Your task to perform on an android device: Open Maps and search for coffee Image 0: 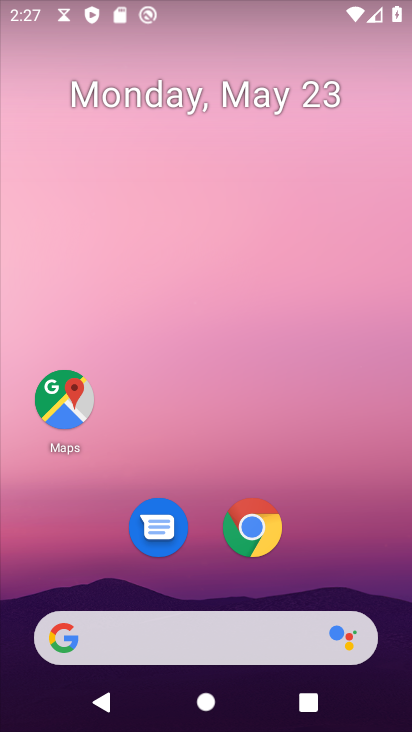
Step 0: drag from (328, 547) to (288, 12)
Your task to perform on an android device: Open Maps and search for coffee Image 1: 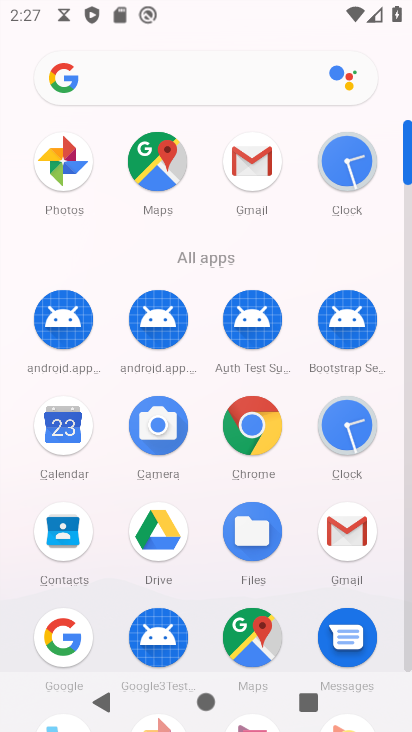
Step 1: drag from (15, 580) to (16, 156)
Your task to perform on an android device: Open Maps and search for coffee Image 2: 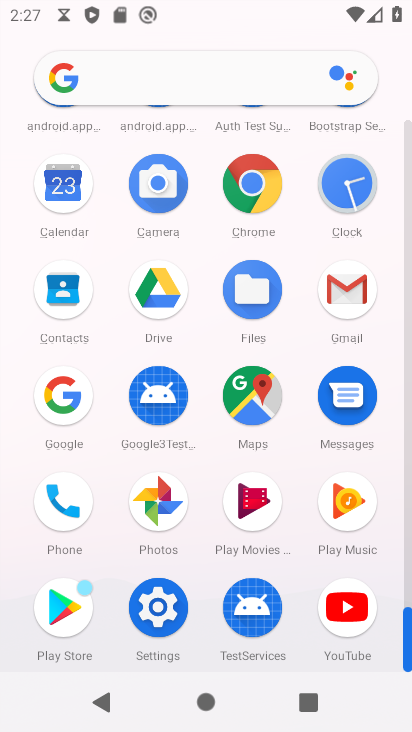
Step 2: click (250, 390)
Your task to perform on an android device: Open Maps and search for coffee Image 3: 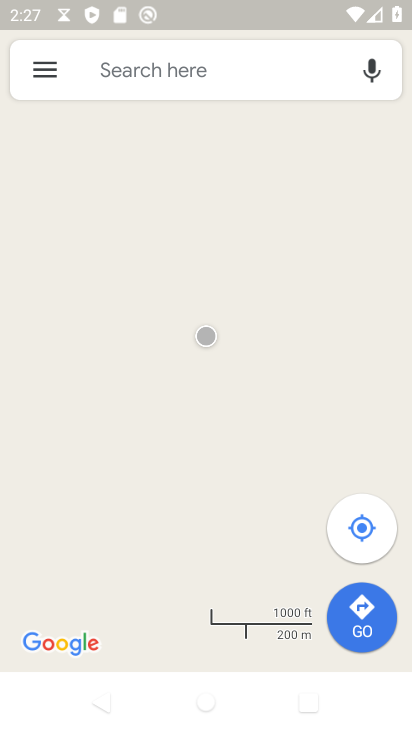
Step 3: click (233, 67)
Your task to perform on an android device: Open Maps and search for coffee Image 4: 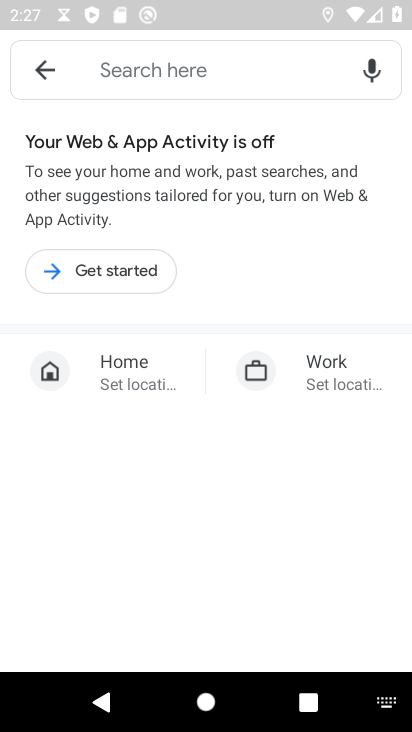
Step 4: click (141, 73)
Your task to perform on an android device: Open Maps and search for coffee Image 5: 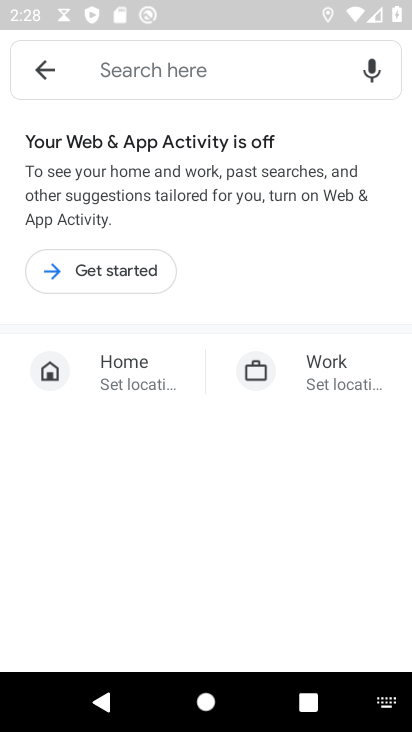
Step 5: click (150, 67)
Your task to perform on an android device: Open Maps and search for coffee Image 6: 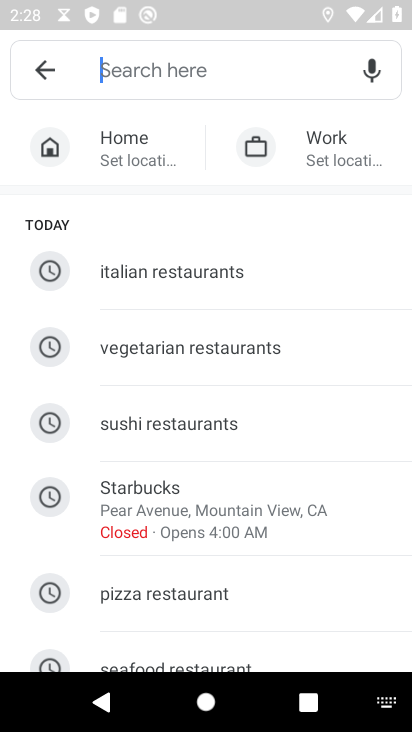
Step 6: type "ESPN.com"
Your task to perform on an android device: Open Maps and search for coffee Image 7: 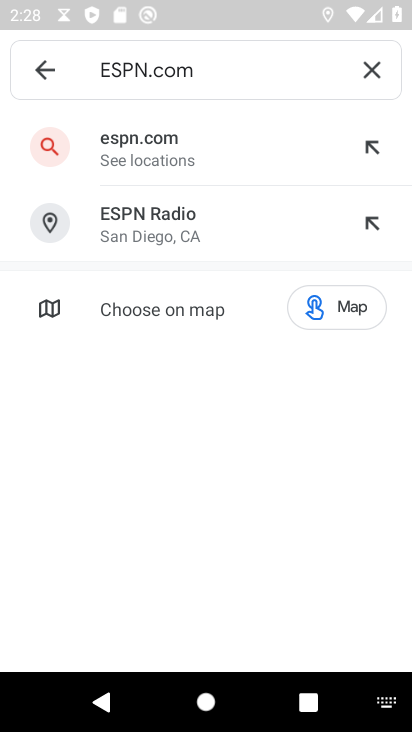
Step 7: click (379, 67)
Your task to perform on an android device: Open Maps and search for coffee Image 8: 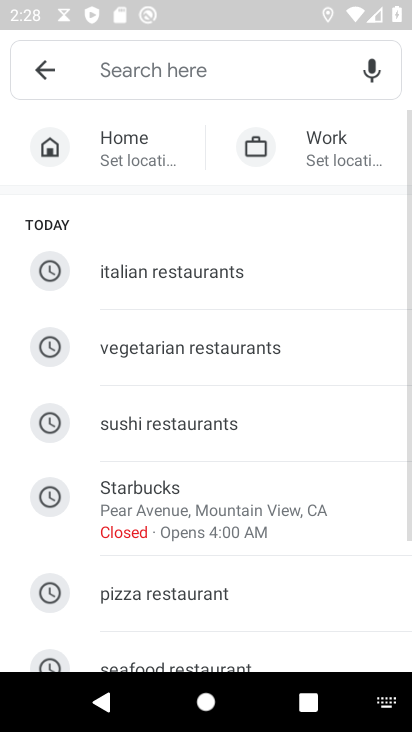
Step 8: drag from (276, 571) to (275, 268)
Your task to perform on an android device: Open Maps and search for coffee Image 9: 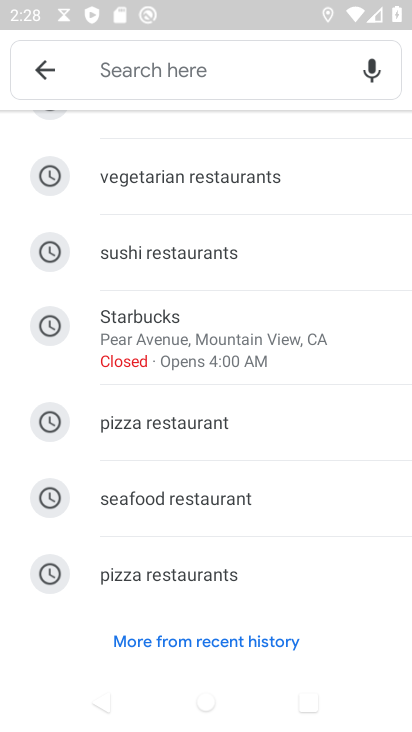
Step 9: click (214, 75)
Your task to perform on an android device: Open Maps and search for coffee Image 10: 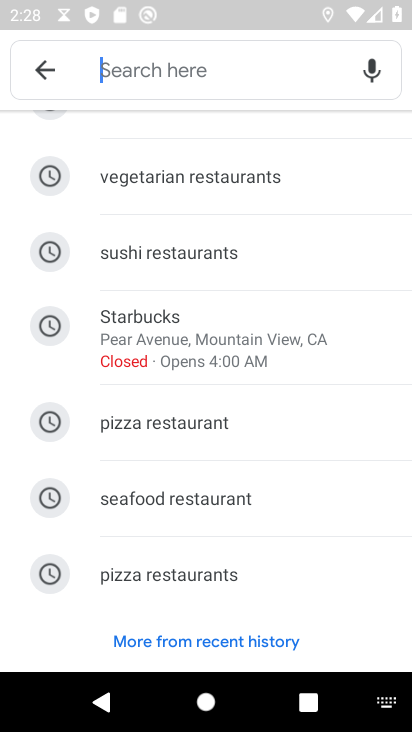
Step 10: type "coffee"
Your task to perform on an android device: Open Maps and search for coffee Image 11: 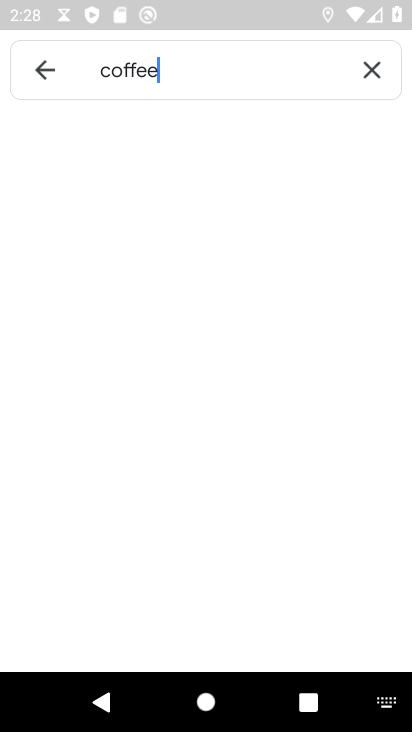
Step 11: type ""
Your task to perform on an android device: Open Maps and search for coffee Image 12: 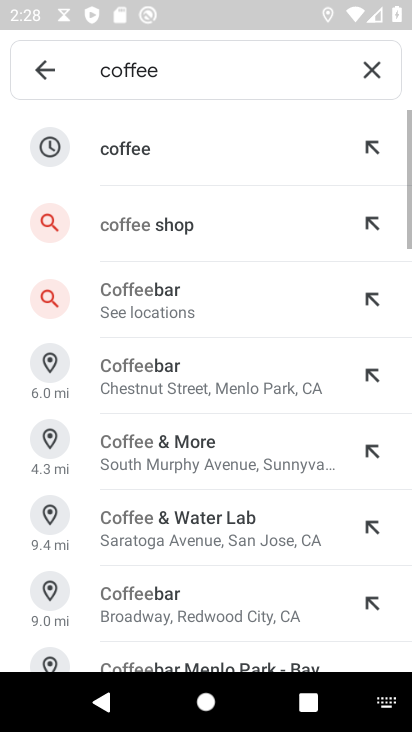
Step 12: click (159, 149)
Your task to perform on an android device: Open Maps and search for coffee Image 13: 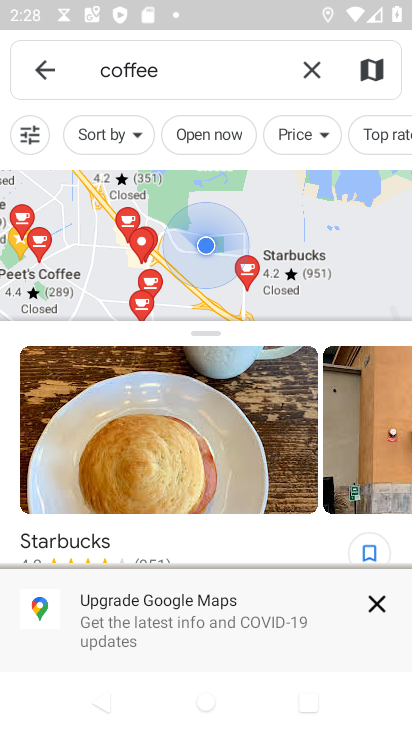
Step 13: click (391, 595)
Your task to perform on an android device: Open Maps and search for coffee Image 14: 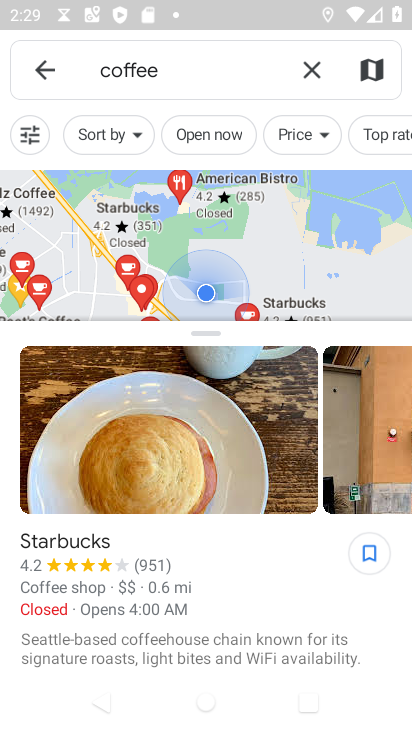
Step 14: task complete